Your task to perform on an android device: check google app version Image 0: 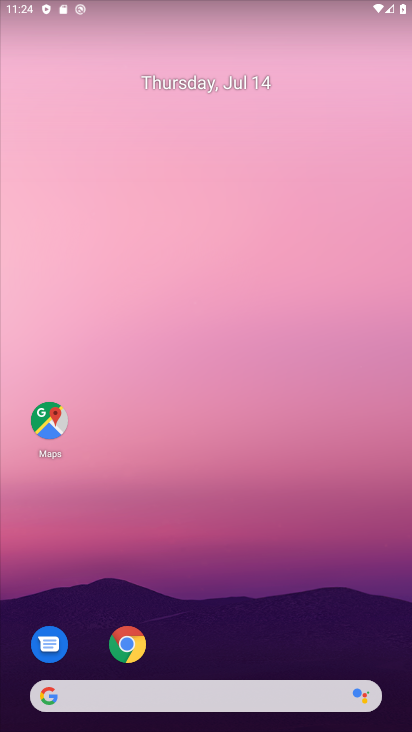
Step 0: drag from (331, 646) to (268, 25)
Your task to perform on an android device: check google app version Image 1: 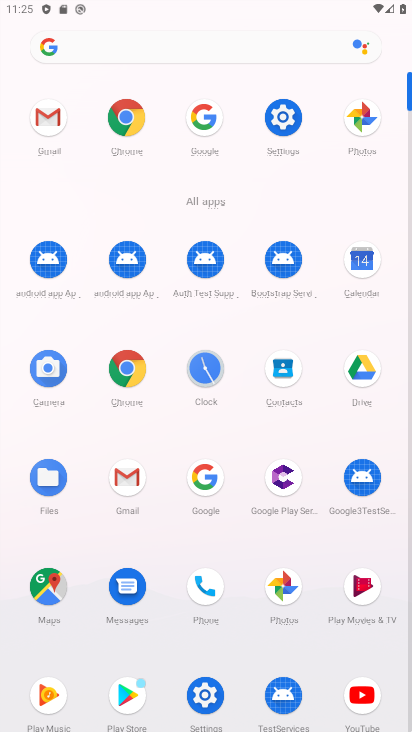
Step 1: click (207, 482)
Your task to perform on an android device: check google app version Image 2: 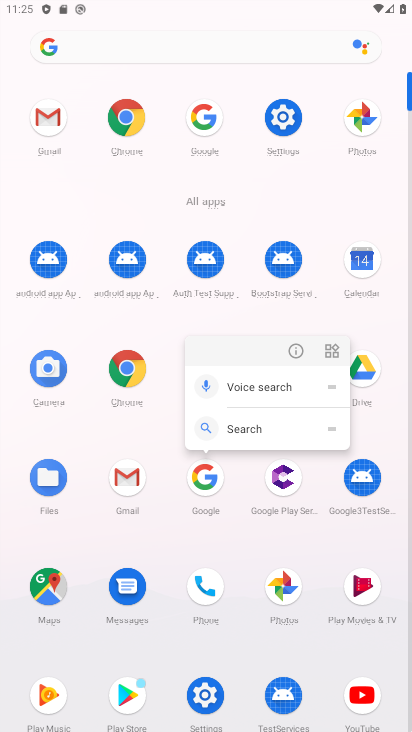
Step 2: click (294, 343)
Your task to perform on an android device: check google app version Image 3: 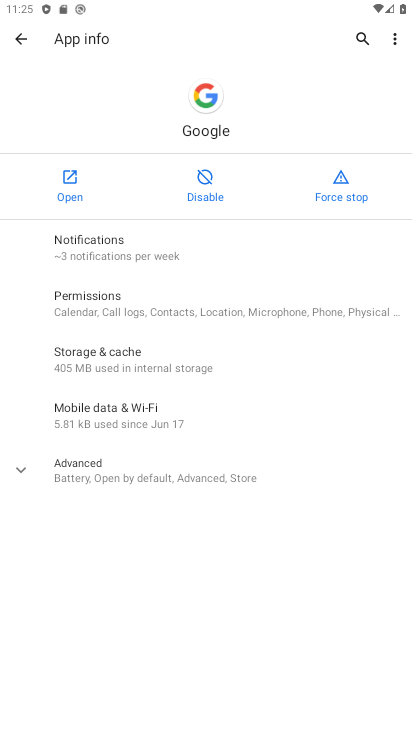
Step 3: drag from (244, 636) to (244, 418)
Your task to perform on an android device: check google app version Image 4: 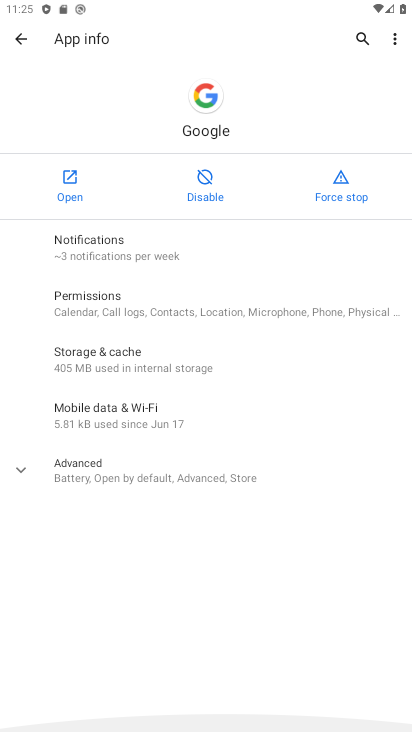
Step 4: click (174, 468)
Your task to perform on an android device: check google app version Image 5: 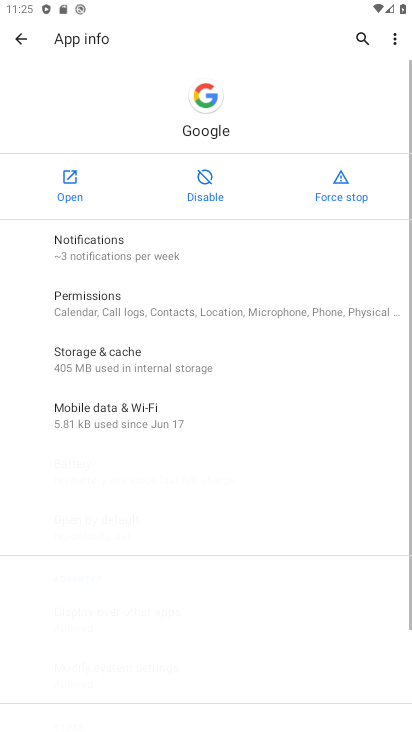
Step 5: task complete